Your task to perform on an android device: change alarm snooze length Image 0: 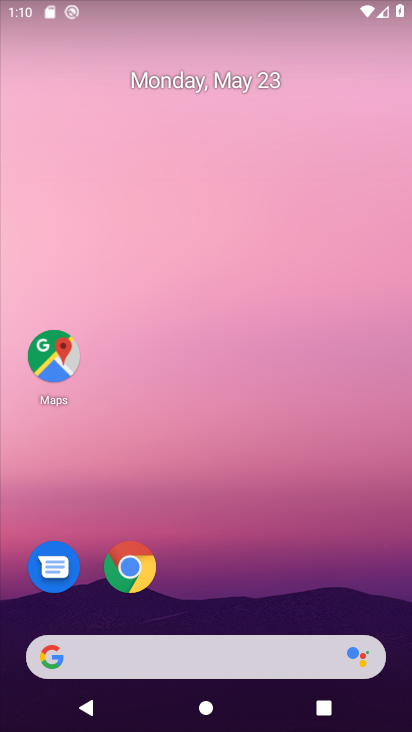
Step 0: drag from (228, 608) to (120, 226)
Your task to perform on an android device: change alarm snooze length Image 1: 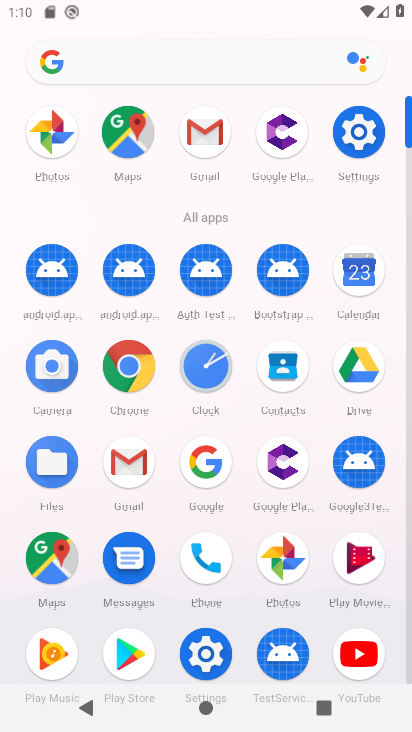
Step 1: click (216, 649)
Your task to perform on an android device: change alarm snooze length Image 2: 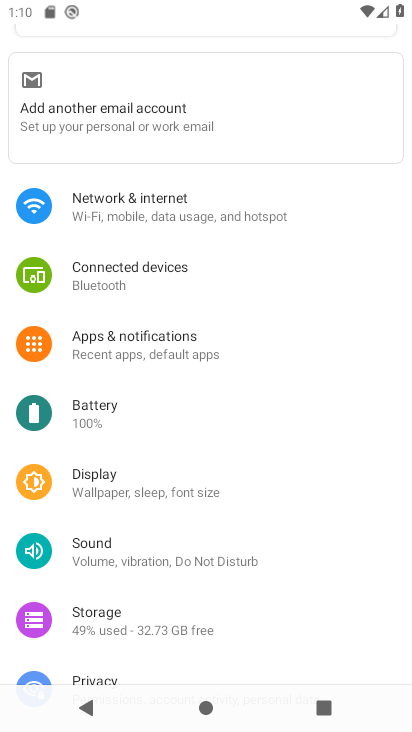
Step 2: press home button
Your task to perform on an android device: change alarm snooze length Image 3: 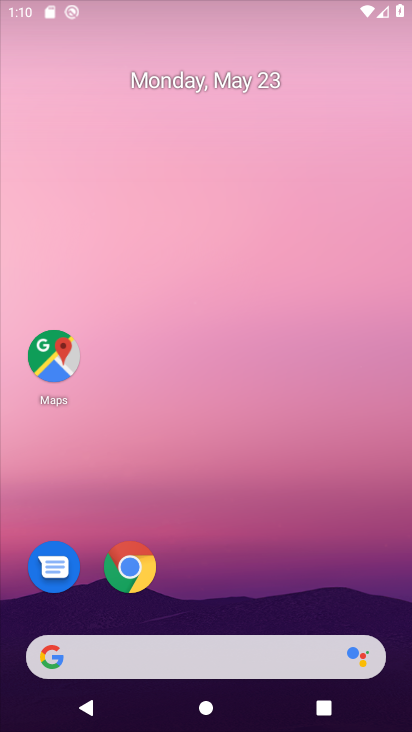
Step 3: drag from (260, 551) to (297, 138)
Your task to perform on an android device: change alarm snooze length Image 4: 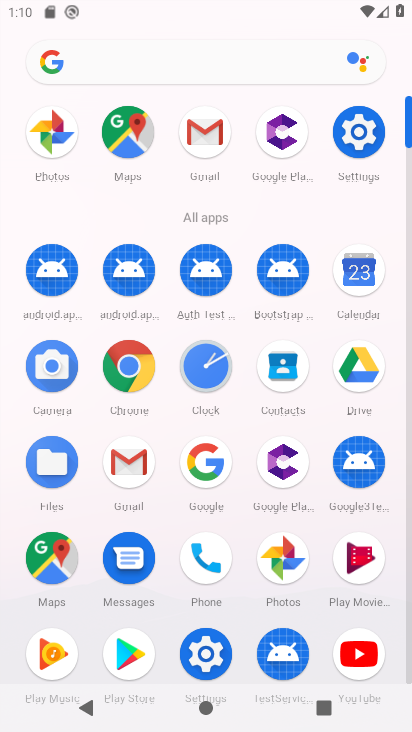
Step 4: click (206, 381)
Your task to perform on an android device: change alarm snooze length Image 5: 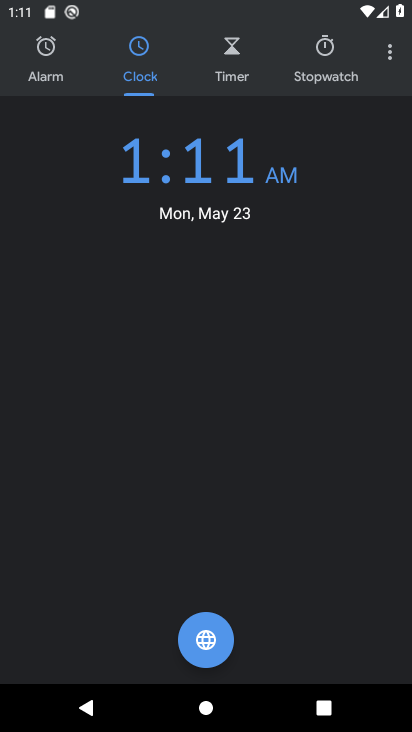
Step 5: click (386, 55)
Your task to perform on an android device: change alarm snooze length Image 6: 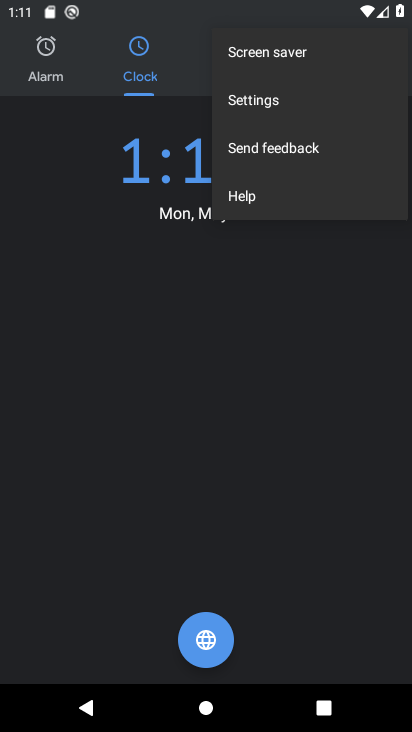
Step 6: click (276, 101)
Your task to perform on an android device: change alarm snooze length Image 7: 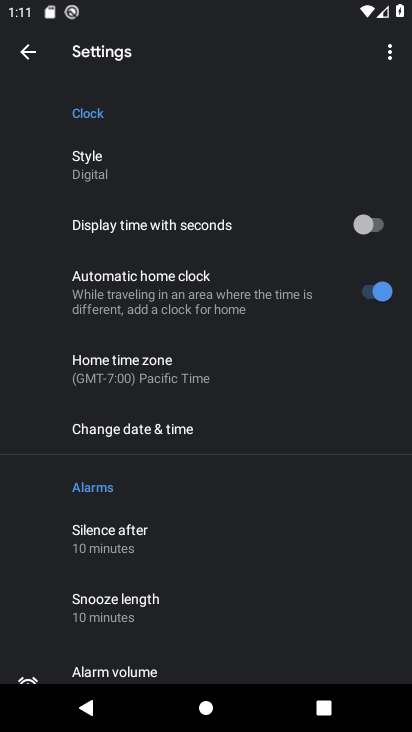
Step 7: drag from (182, 569) to (151, 427)
Your task to perform on an android device: change alarm snooze length Image 8: 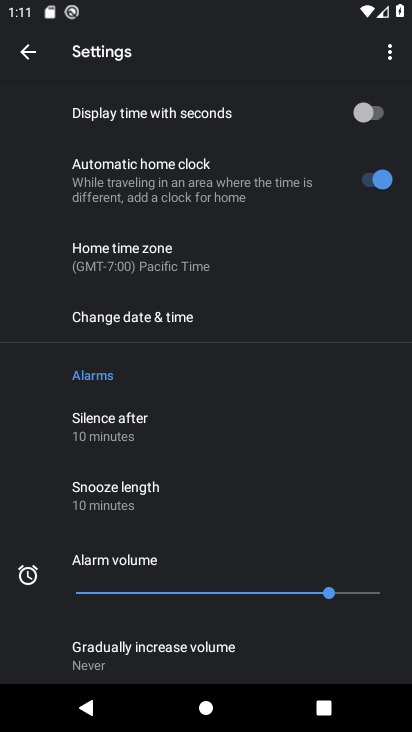
Step 8: click (145, 508)
Your task to perform on an android device: change alarm snooze length Image 9: 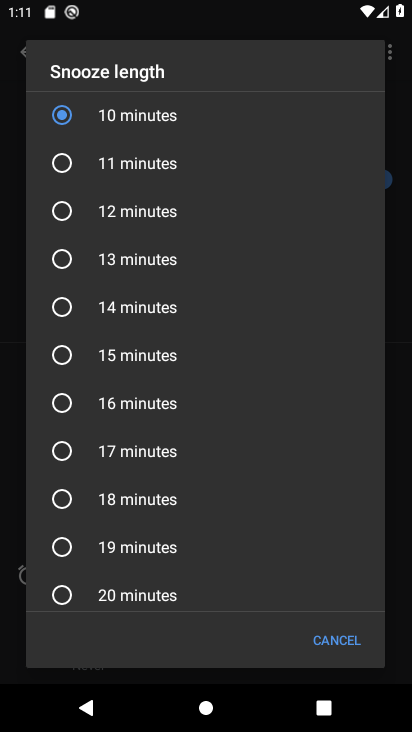
Step 9: click (147, 268)
Your task to perform on an android device: change alarm snooze length Image 10: 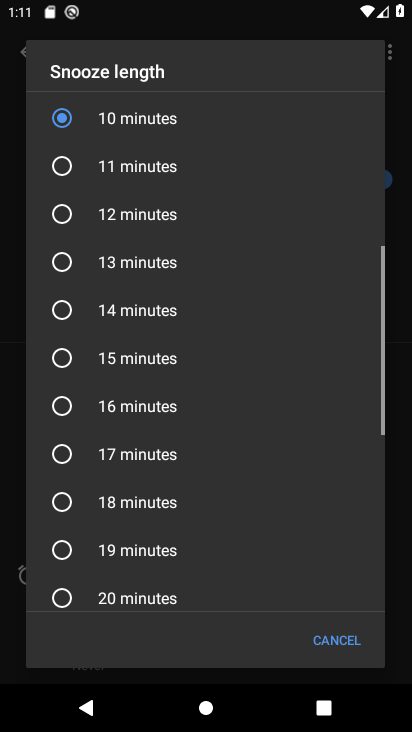
Step 10: click (125, 274)
Your task to perform on an android device: change alarm snooze length Image 11: 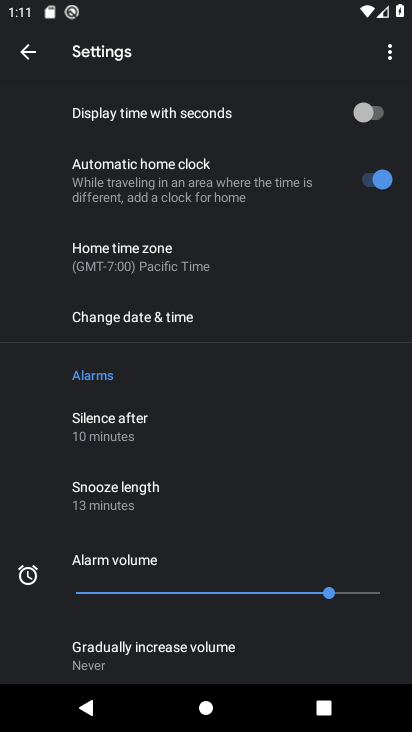
Step 11: task complete